Your task to perform on an android device: Show me productivity apps on the Play Store Image 0: 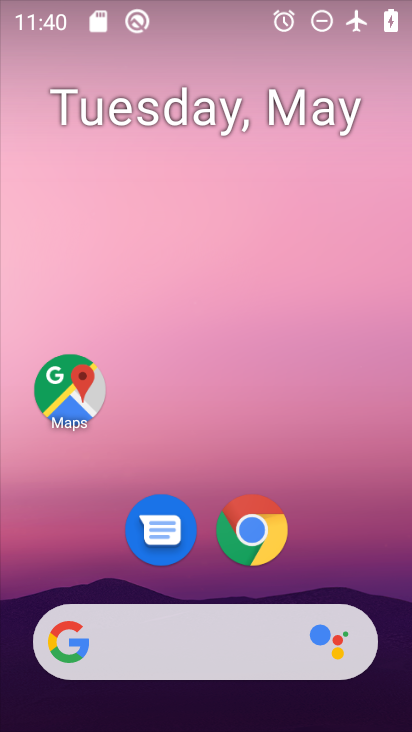
Step 0: drag from (335, 356) to (326, 89)
Your task to perform on an android device: Show me productivity apps on the Play Store Image 1: 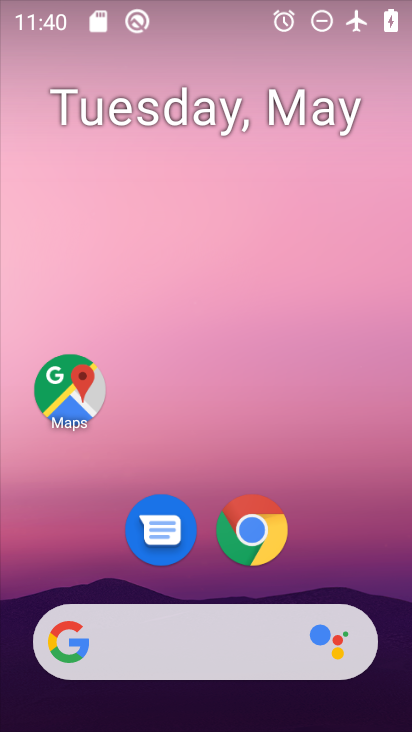
Step 1: drag from (326, 471) to (316, 92)
Your task to perform on an android device: Show me productivity apps on the Play Store Image 2: 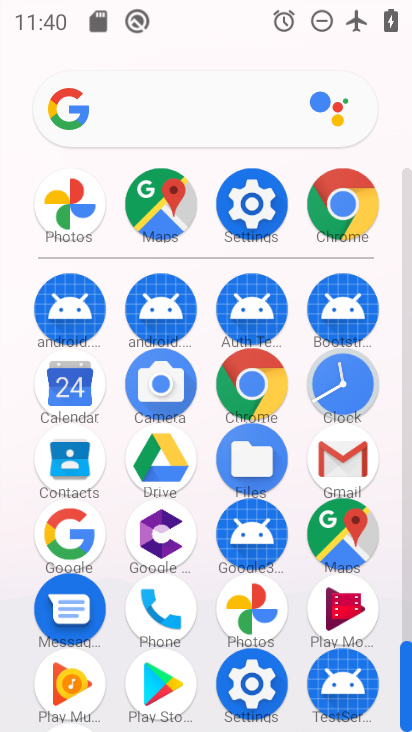
Step 2: click (158, 672)
Your task to perform on an android device: Show me productivity apps on the Play Store Image 3: 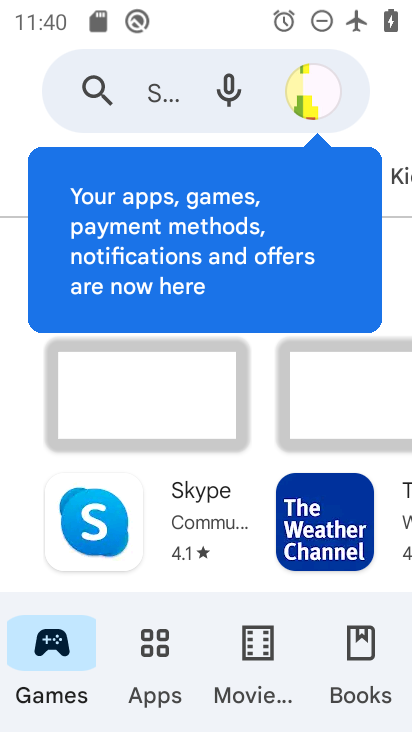
Step 3: click (162, 609)
Your task to perform on an android device: Show me productivity apps on the Play Store Image 4: 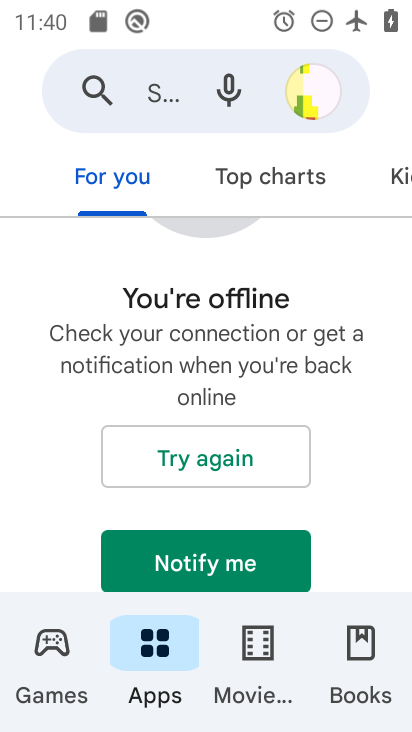
Step 4: task complete